Your task to perform on an android device: Open Youtube and go to the subscriptions tab Image 0: 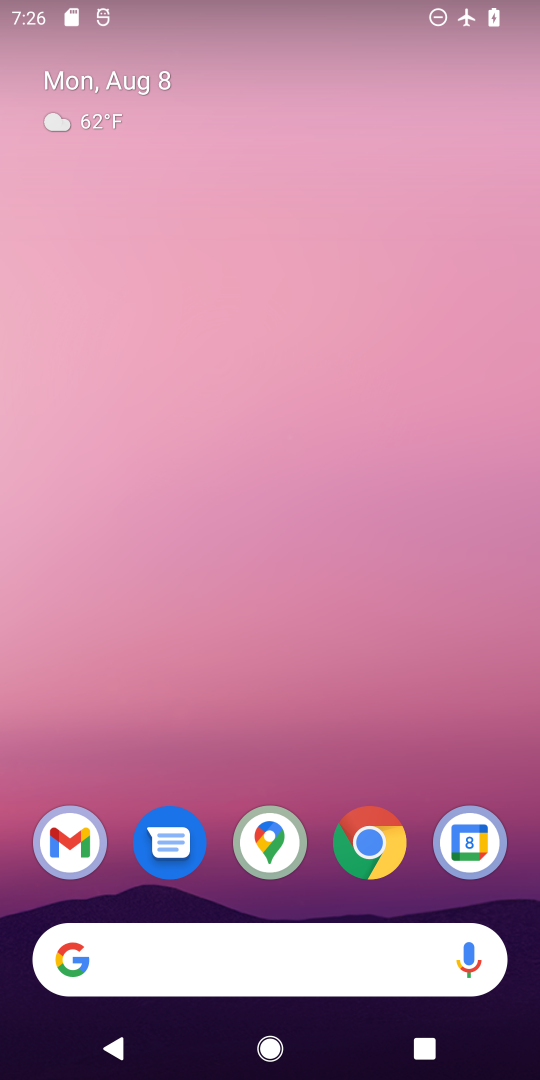
Step 0: drag from (244, 920) to (286, 31)
Your task to perform on an android device: Open Youtube and go to the subscriptions tab Image 1: 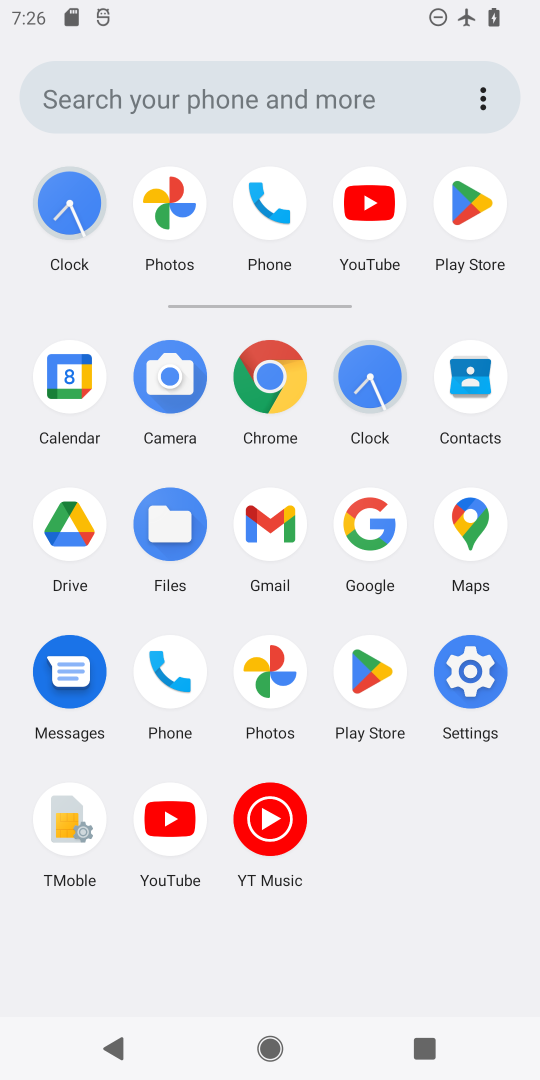
Step 1: click (171, 836)
Your task to perform on an android device: Open Youtube and go to the subscriptions tab Image 2: 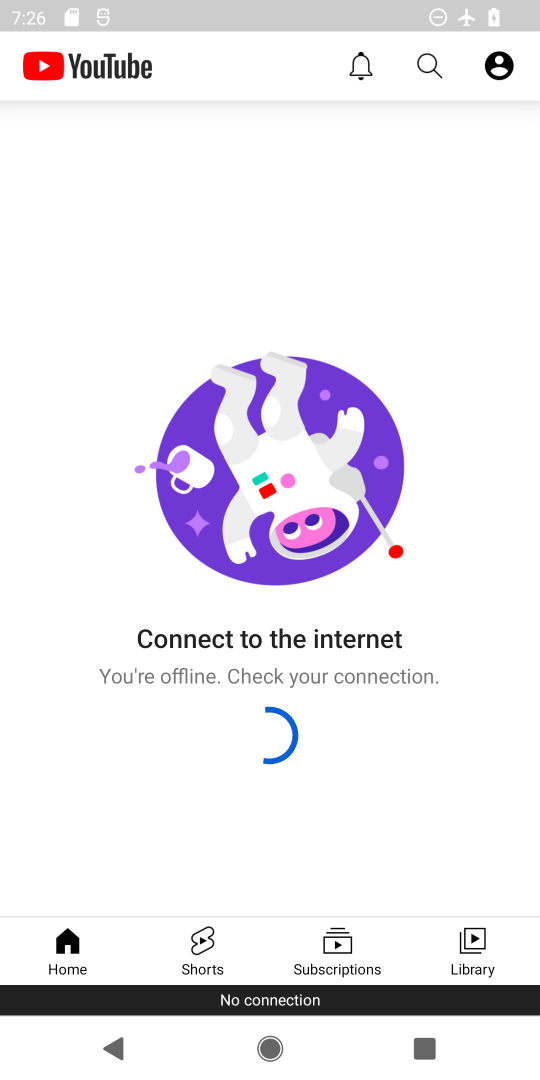
Step 2: click (351, 945)
Your task to perform on an android device: Open Youtube and go to the subscriptions tab Image 3: 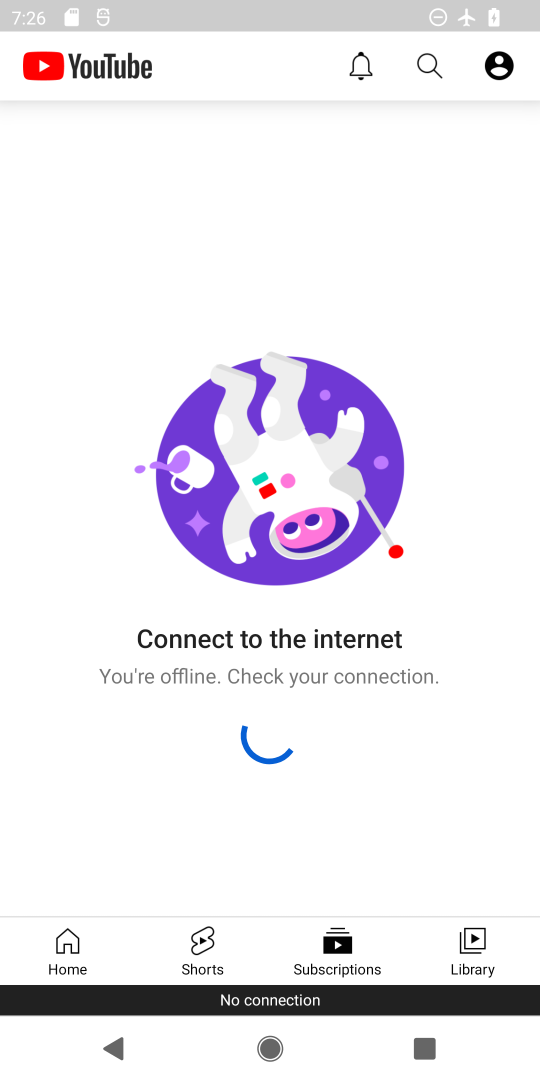
Step 3: click (371, 935)
Your task to perform on an android device: Open Youtube and go to the subscriptions tab Image 4: 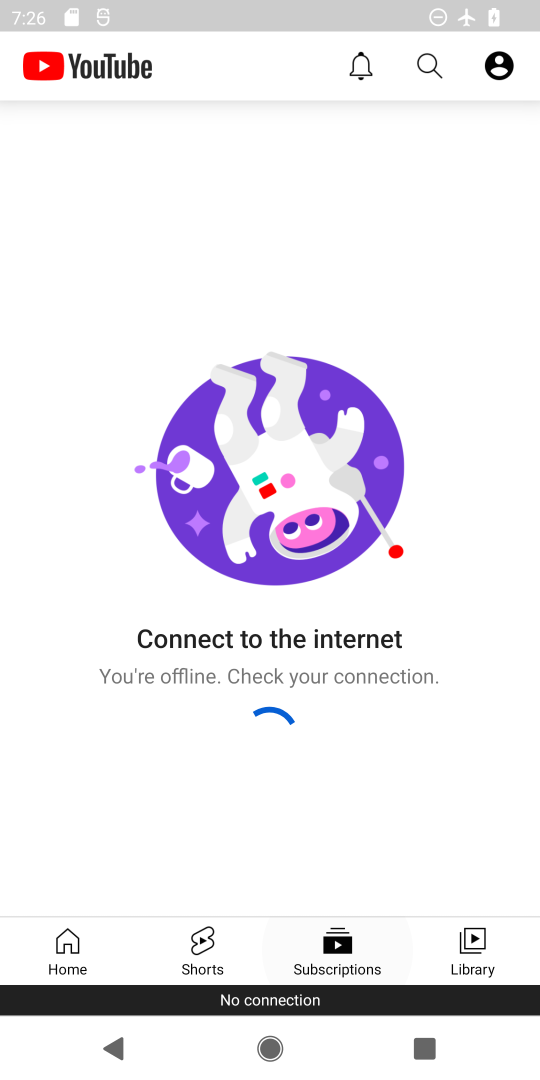
Step 4: task complete